Your task to perform on an android device: Go to calendar. Show me events next week Image 0: 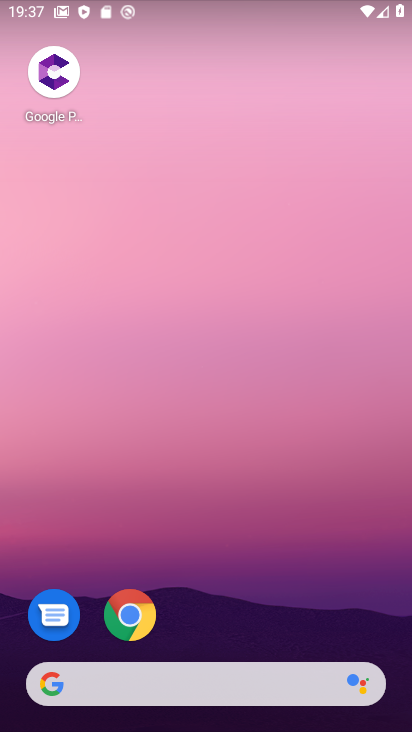
Step 0: drag from (328, 613) to (247, 104)
Your task to perform on an android device: Go to calendar. Show me events next week Image 1: 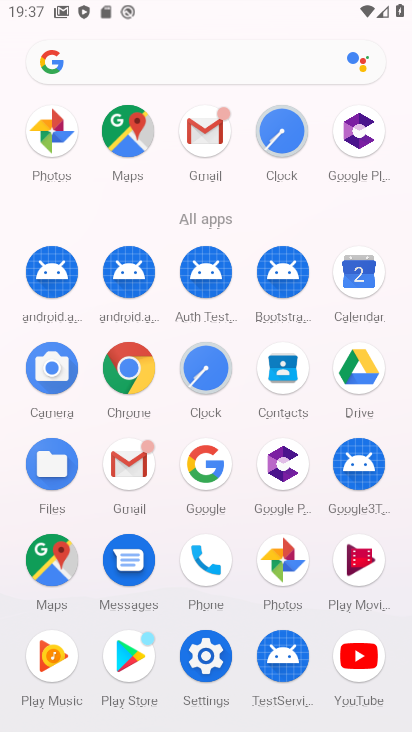
Step 1: click (351, 275)
Your task to perform on an android device: Go to calendar. Show me events next week Image 2: 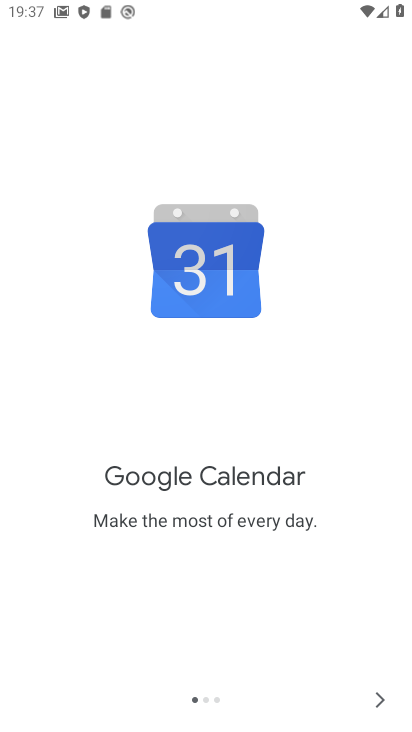
Step 2: click (386, 693)
Your task to perform on an android device: Go to calendar. Show me events next week Image 3: 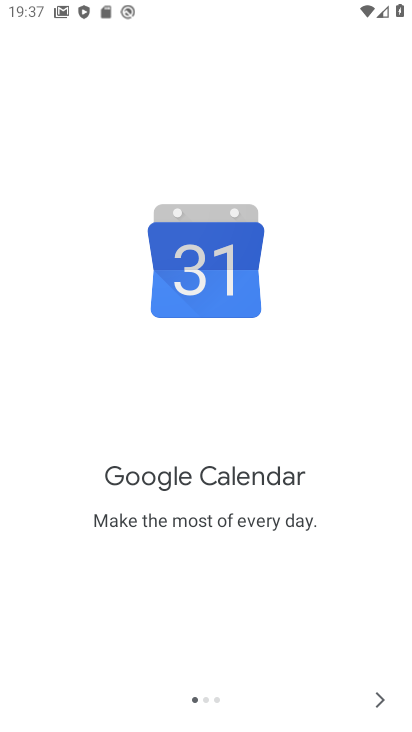
Step 3: click (386, 693)
Your task to perform on an android device: Go to calendar. Show me events next week Image 4: 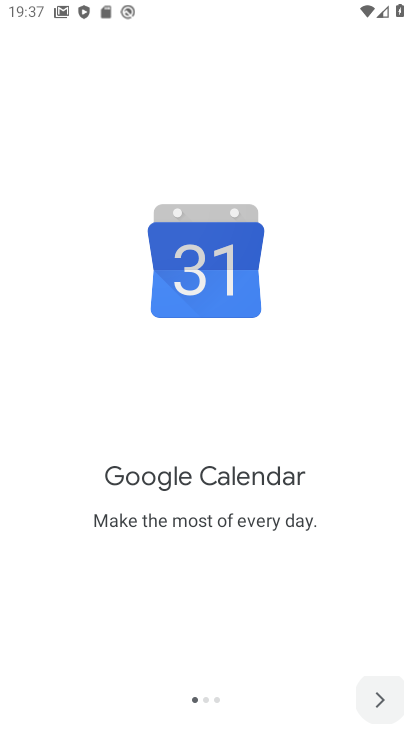
Step 4: click (386, 693)
Your task to perform on an android device: Go to calendar. Show me events next week Image 5: 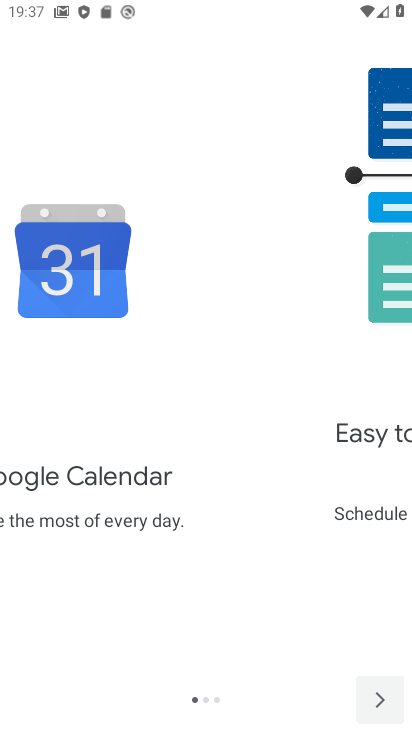
Step 5: click (386, 693)
Your task to perform on an android device: Go to calendar. Show me events next week Image 6: 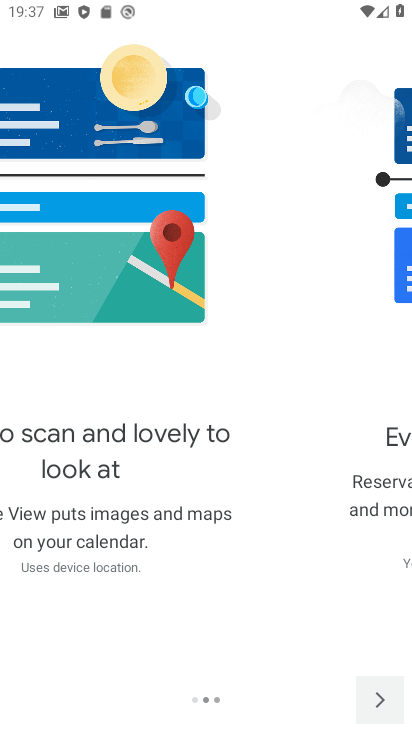
Step 6: click (386, 693)
Your task to perform on an android device: Go to calendar. Show me events next week Image 7: 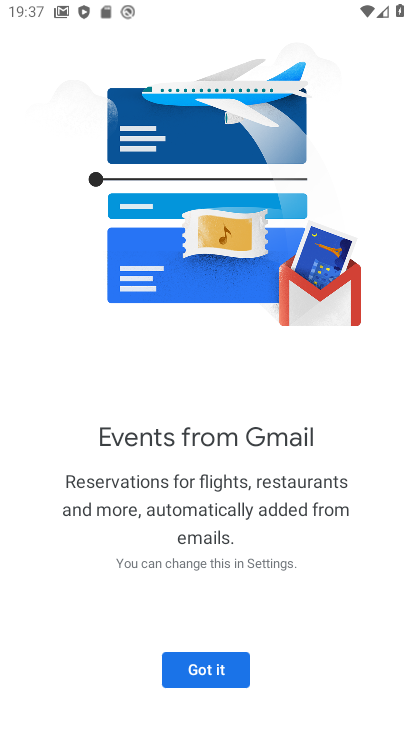
Step 7: click (386, 693)
Your task to perform on an android device: Go to calendar. Show me events next week Image 8: 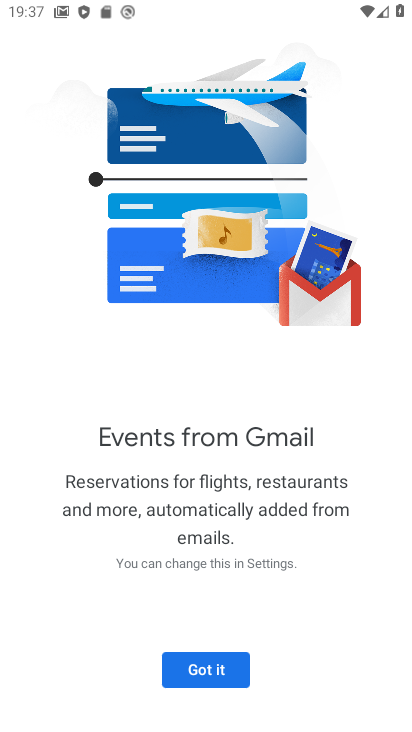
Step 8: click (232, 674)
Your task to perform on an android device: Go to calendar. Show me events next week Image 9: 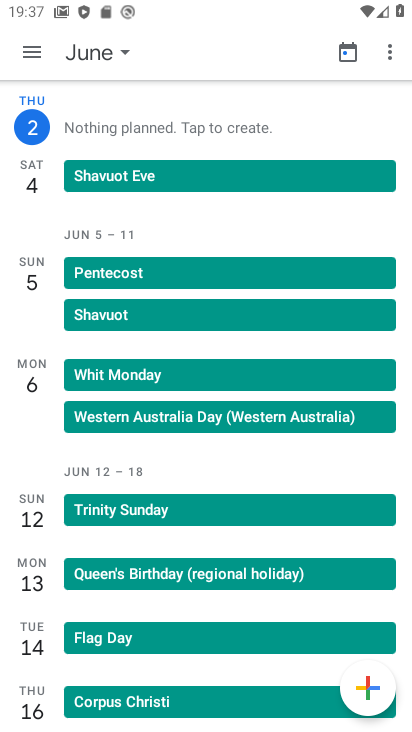
Step 9: task complete